Your task to perform on an android device: open device folders in google photos Image 0: 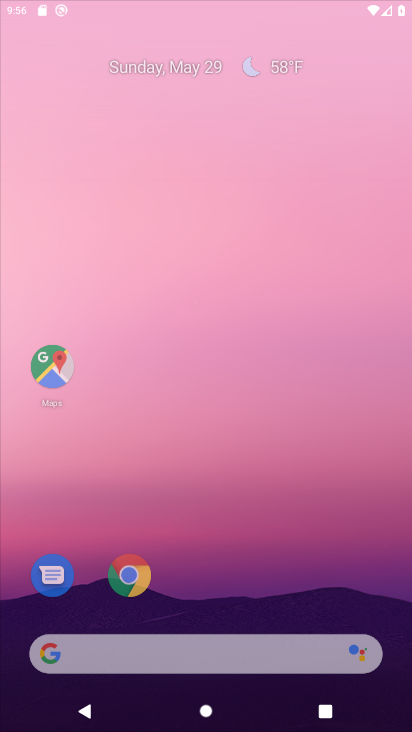
Step 0: click (168, 49)
Your task to perform on an android device: open device folders in google photos Image 1: 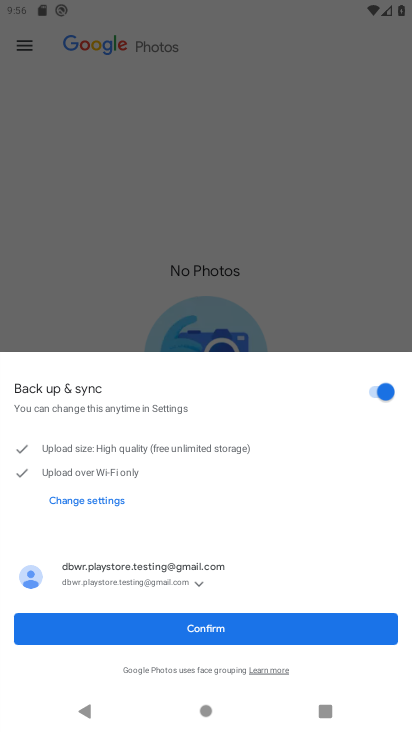
Step 1: press home button
Your task to perform on an android device: open device folders in google photos Image 2: 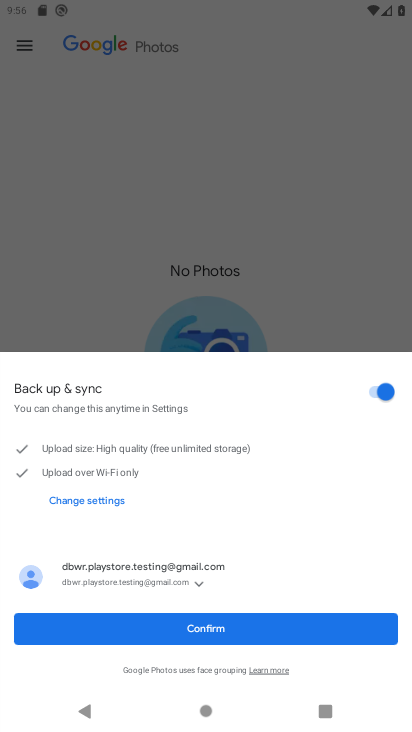
Step 2: press home button
Your task to perform on an android device: open device folders in google photos Image 3: 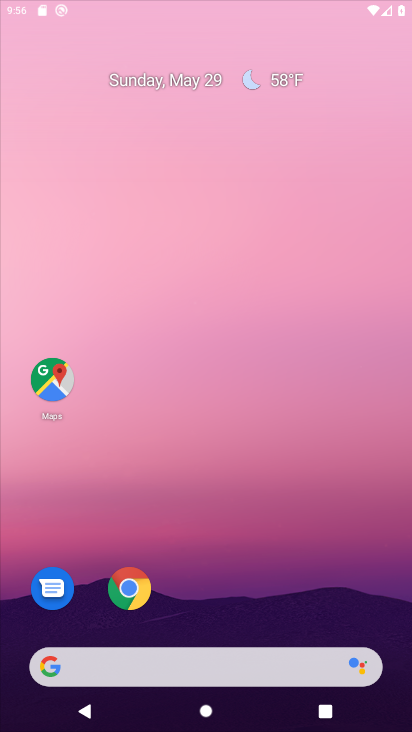
Step 3: press home button
Your task to perform on an android device: open device folders in google photos Image 4: 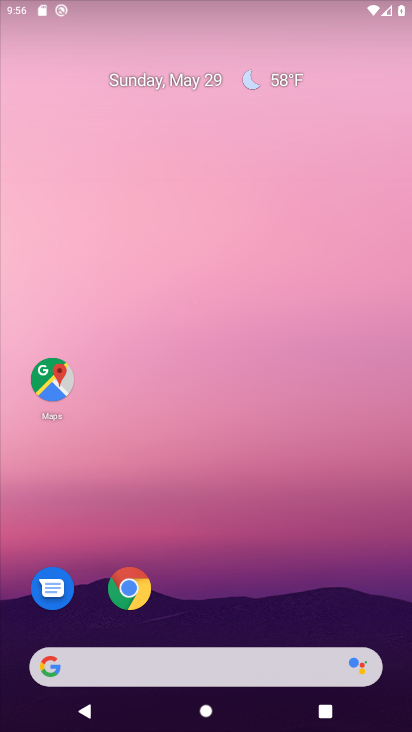
Step 4: press home button
Your task to perform on an android device: open device folders in google photos Image 5: 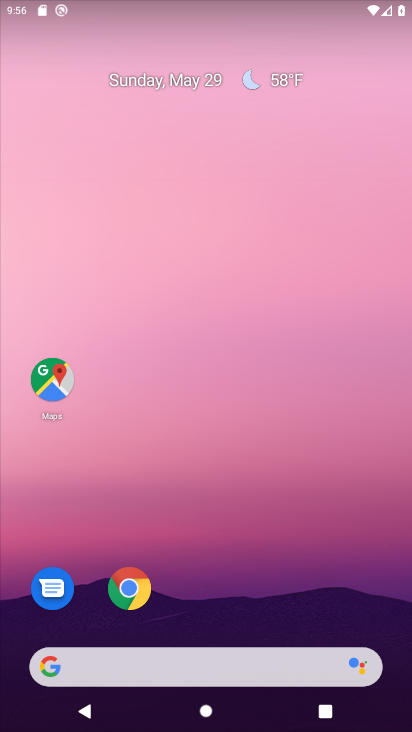
Step 5: drag from (255, 595) to (165, 62)
Your task to perform on an android device: open device folders in google photos Image 6: 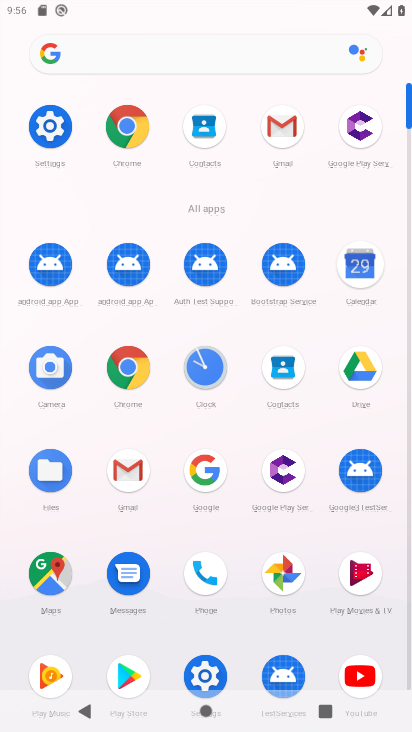
Step 6: click (286, 568)
Your task to perform on an android device: open device folders in google photos Image 7: 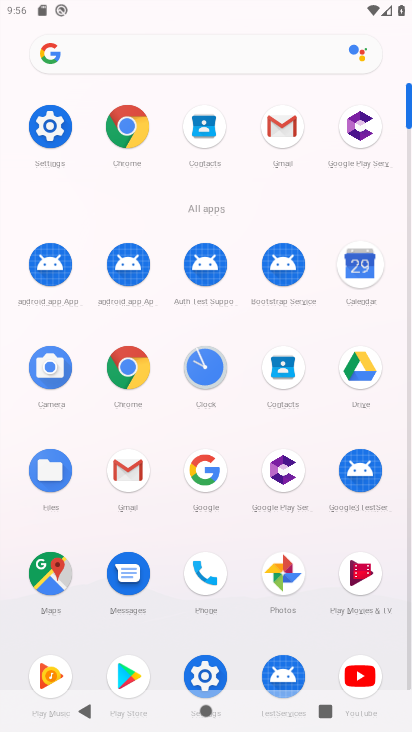
Step 7: click (286, 568)
Your task to perform on an android device: open device folders in google photos Image 8: 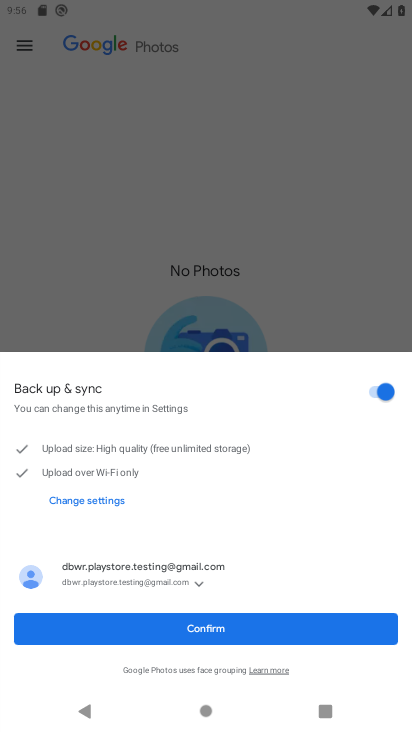
Step 8: click (220, 630)
Your task to perform on an android device: open device folders in google photos Image 9: 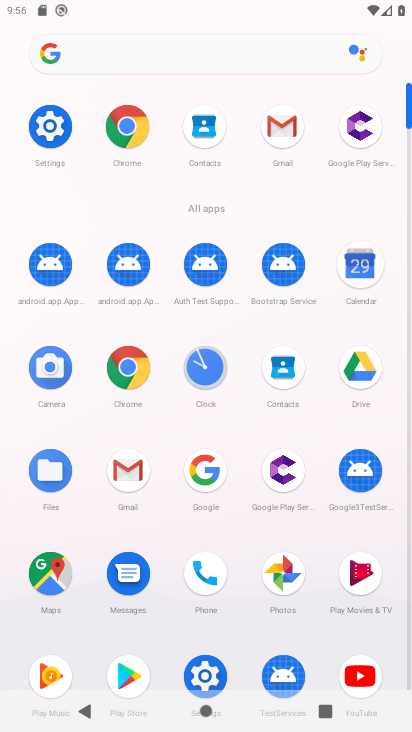
Step 9: click (288, 582)
Your task to perform on an android device: open device folders in google photos Image 10: 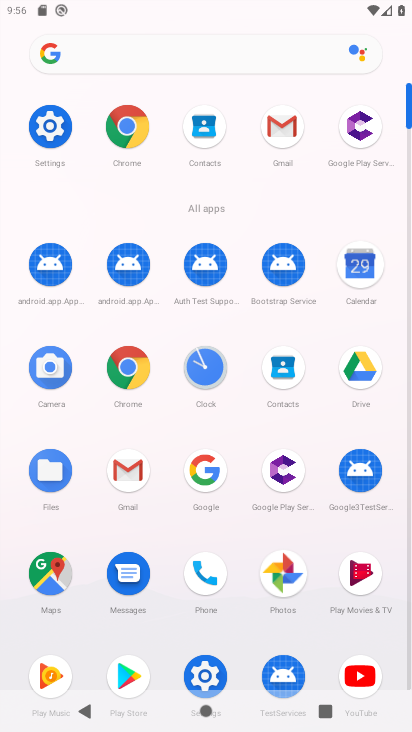
Step 10: click (289, 577)
Your task to perform on an android device: open device folders in google photos Image 11: 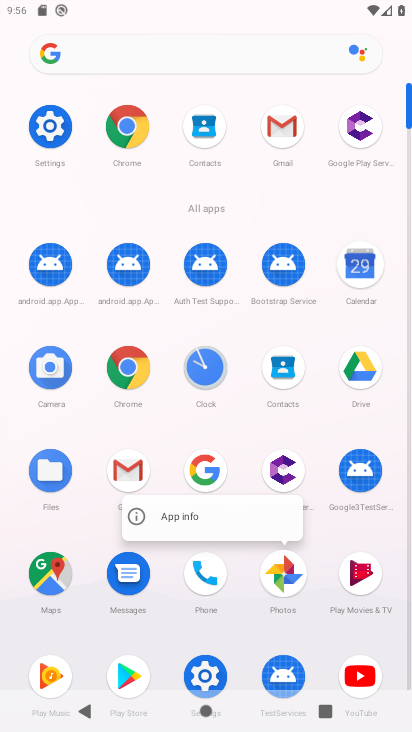
Step 11: click (289, 577)
Your task to perform on an android device: open device folders in google photos Image 12: 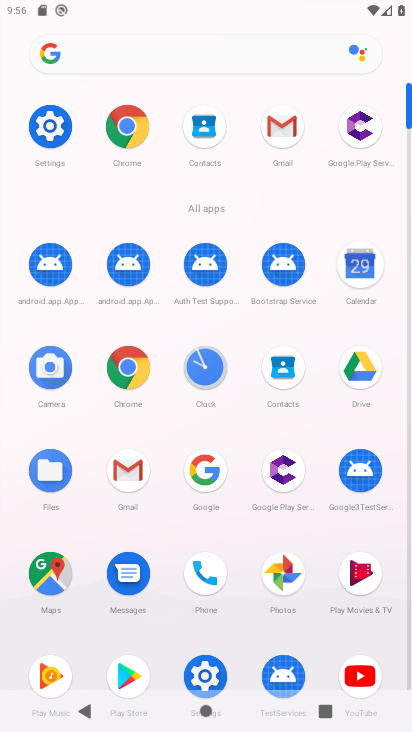
Step 12: click (290, 576)
Your task to perform on an android device: open device folders in google photos Image 13: 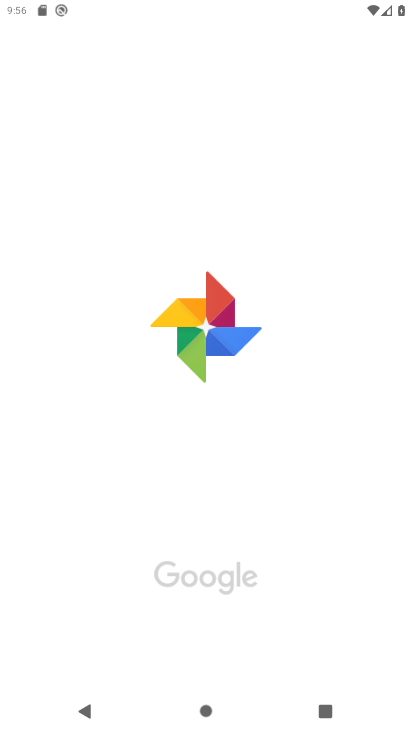
Step 13: click (289, 573)
Your task to perform on an android device: open device folders in google photos Image 14: 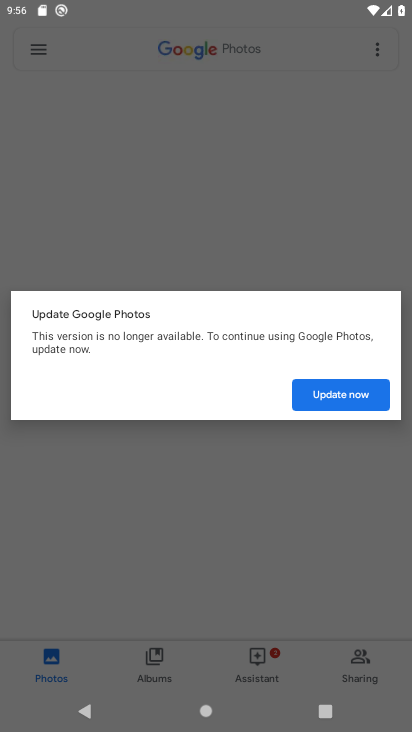
Step 14: click (336, 395)
Your task to perform on an android device: open device folders in google photos Image 15: 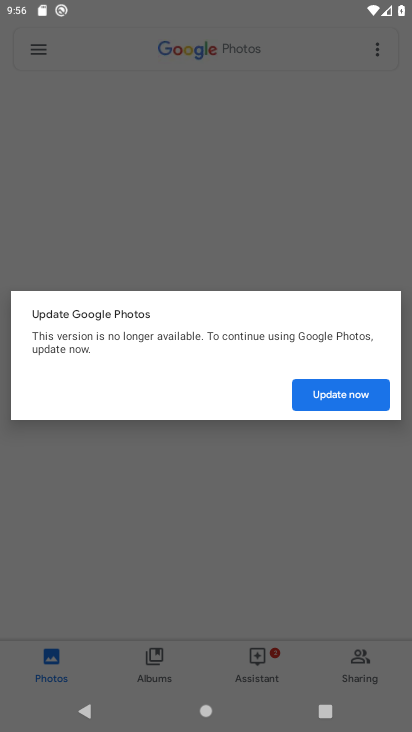
Step 15: click (337, 395)
Your task to perform on an android device: open device folders in google photos Image 16: 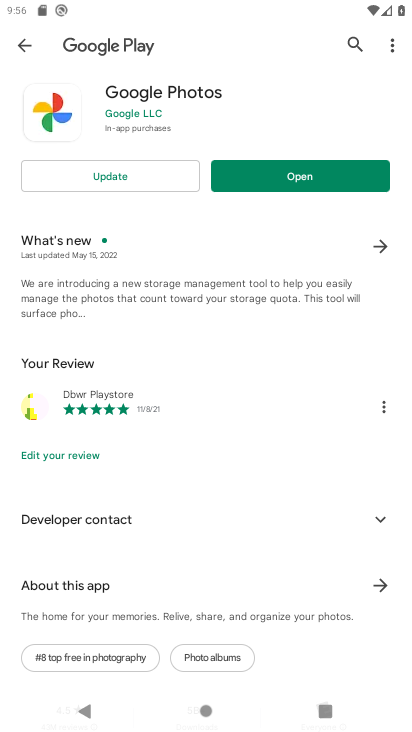
Step 16: click (131, 176)
Your task to perform on an android device: open device folders in google photos Image 17: 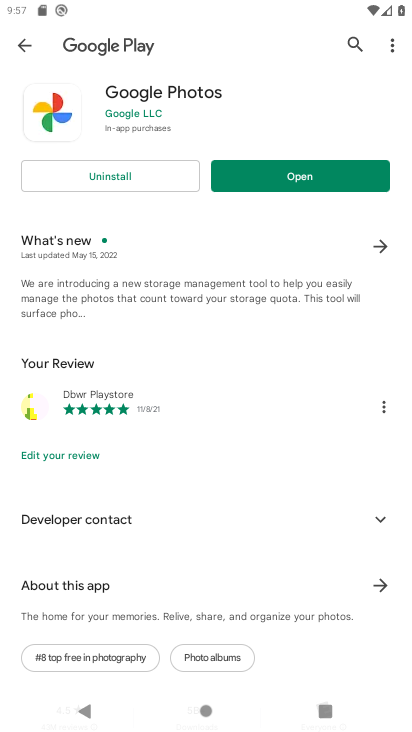
Step 17: click (282, 177)
Your task to perform on an android device: open device folders in google photos Image 18: 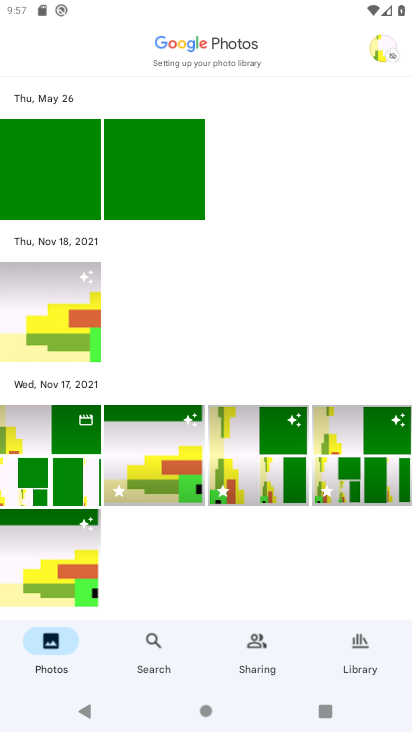
Step 18: click (372, 62)
Your task to perform on an android device: open device folders in google photos Image 19: 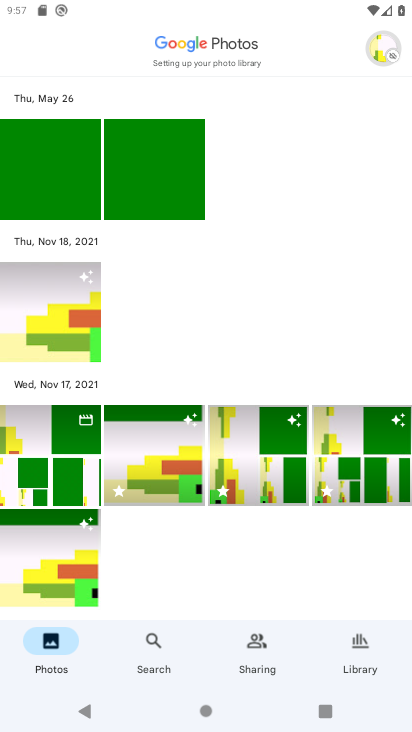
Step 19: click (383, 54)
Your task to perform on an android device: open device folders in google photos Image 20: 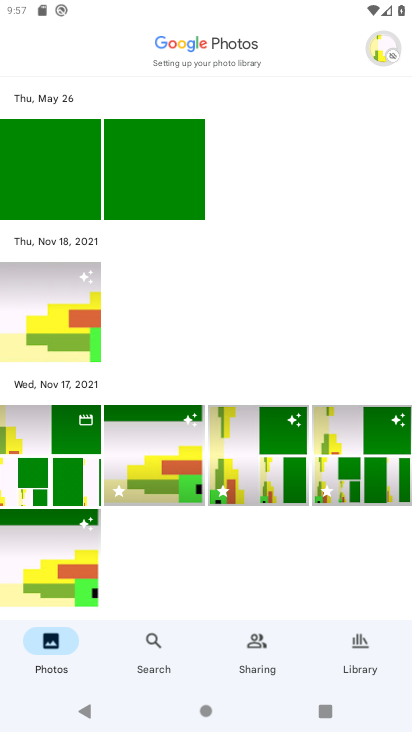
Step 20: click (381, 64)
Your task to perform on an android device: open device folders in google photos Image 21: 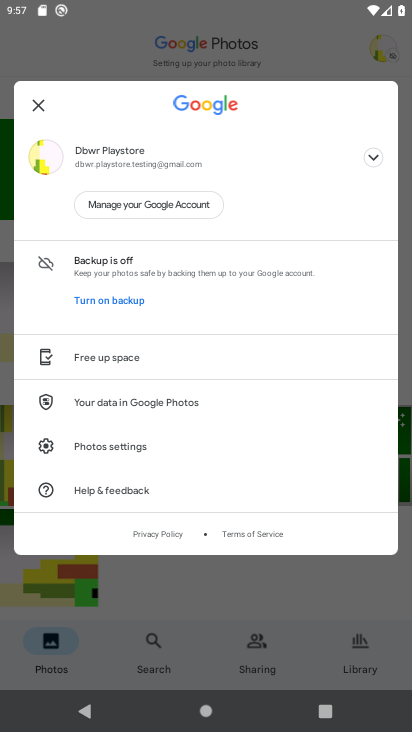
Step 21: click (98, 428)
Your task to perform on an android device: open device folders in google photos Image 22: 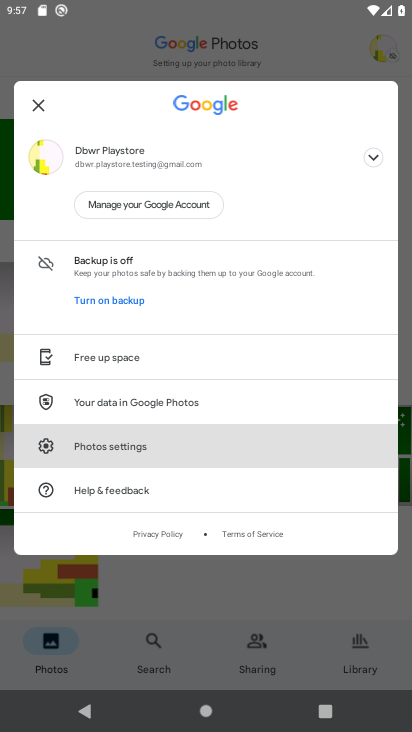
Step 22: click (107, 435)
Your task to perform on an android device: open device folders in google photos Image 23: 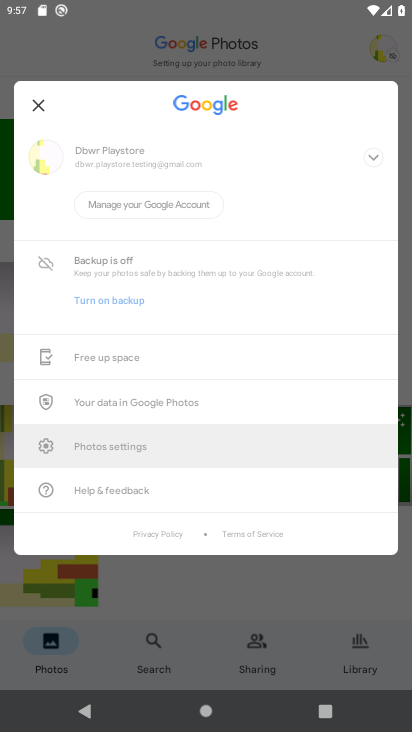
Step 23: click (108, 437)
Your task to perform on an android device: open device folders in google photos Image 24: 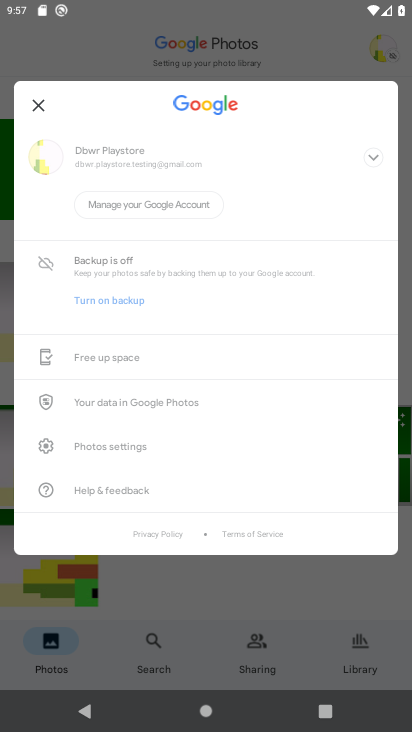
Step 24: click (108, 442)
Your task to perform on an android device: open device folders in google photos Image 25: 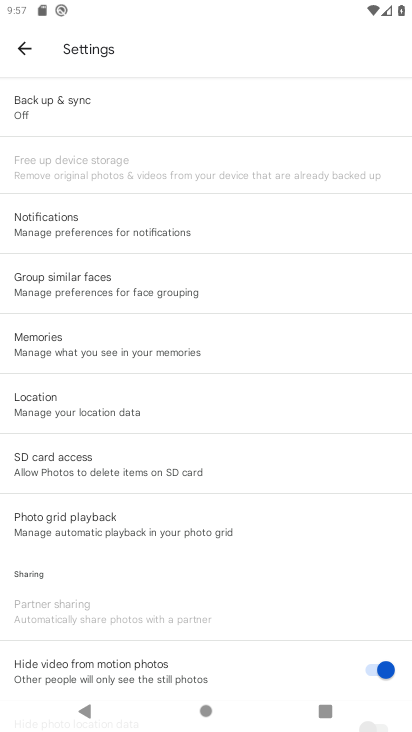
Step 25: click (25, 52)
Your task to perform on an android device: open device folders in google photos Image 26: 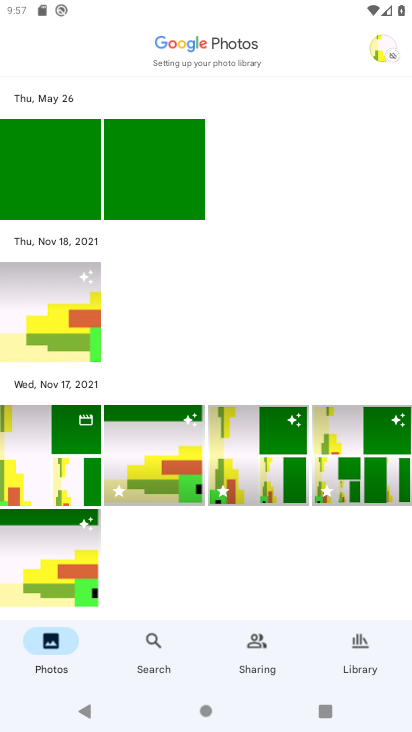
Step 26: task complete